Your task to perform on an android device: Go to privacy settings Image 0: 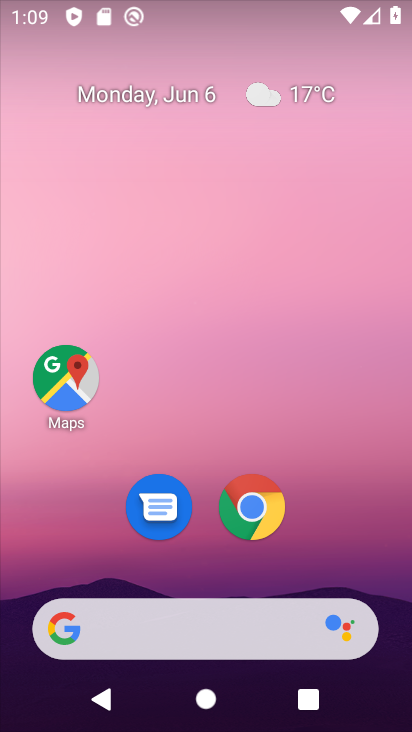
Step 0: drag from (247, 666) to (253, 178)
Your task to perform on an android device: Go to privacy settings Image 1: 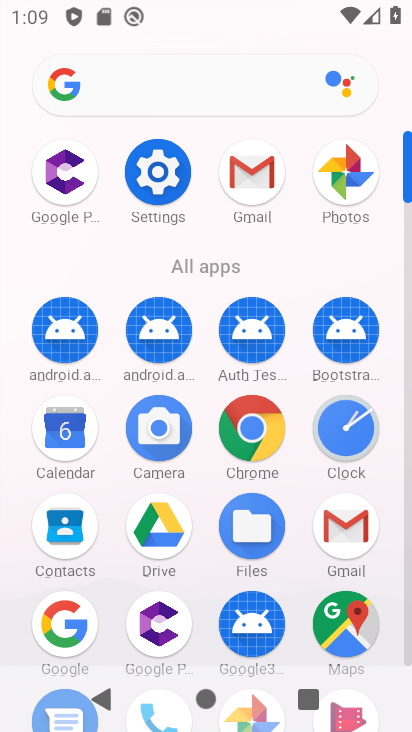
Step 1: click (140, 146)
Your task to perform on an android device: Go to privacy settings Image 2: 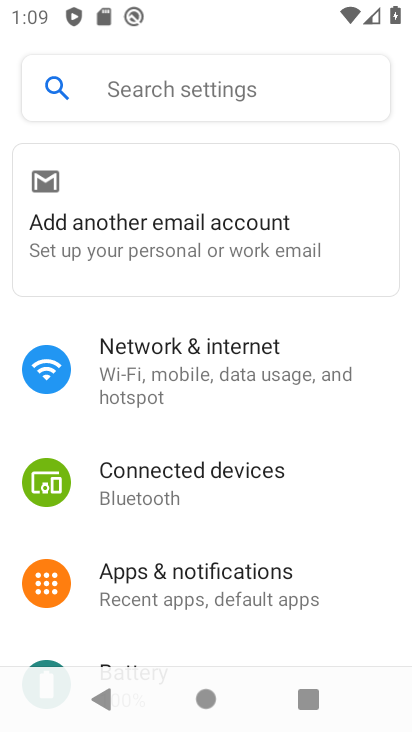
Step 2: click (177, 92)
Your task to perform on an android device: Go to privacy settings Image 3: 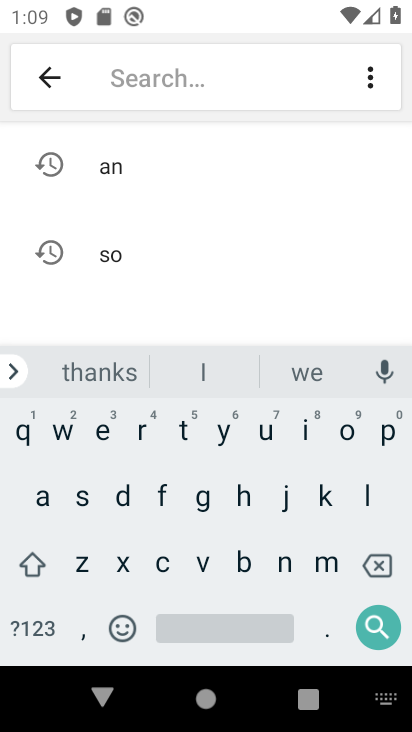
Step 3: click (371, 439)
Your task to perform on an android device: Go to privacy settings Image 4: 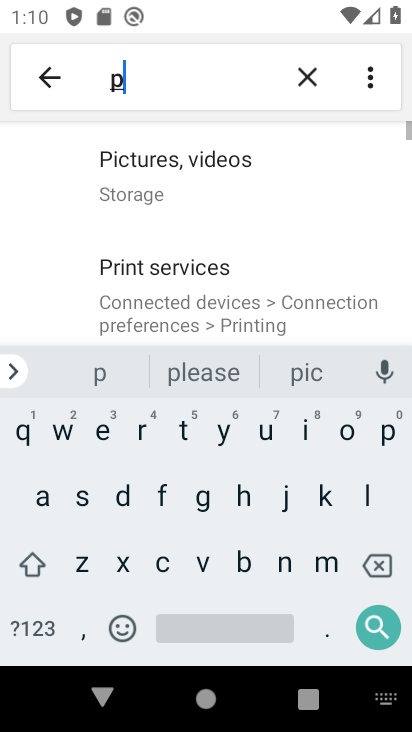
Step 4: click (136, 441)
Your task to perform on an android device: Go to privacy settings Image 5: 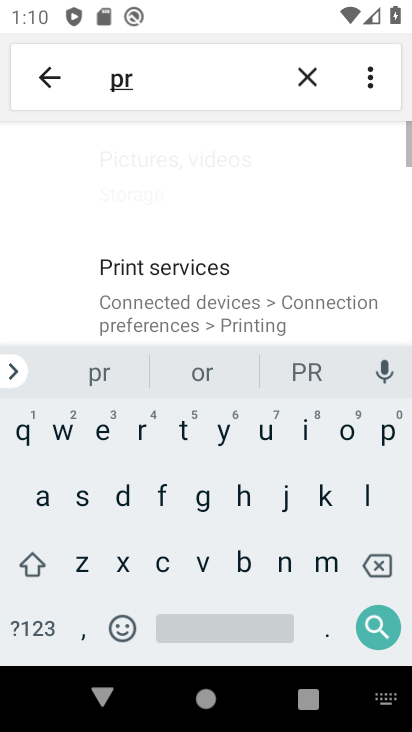
Step 5: click (307, 430)
Your task to perform on an android device: Go to privacy settings Image 6: 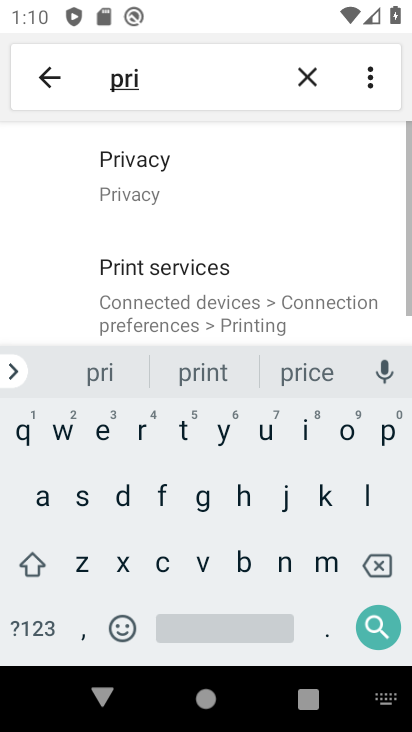
Step 6: click (172, 178)
Your task to perform on an android device: Go to privacy settings Image 7: 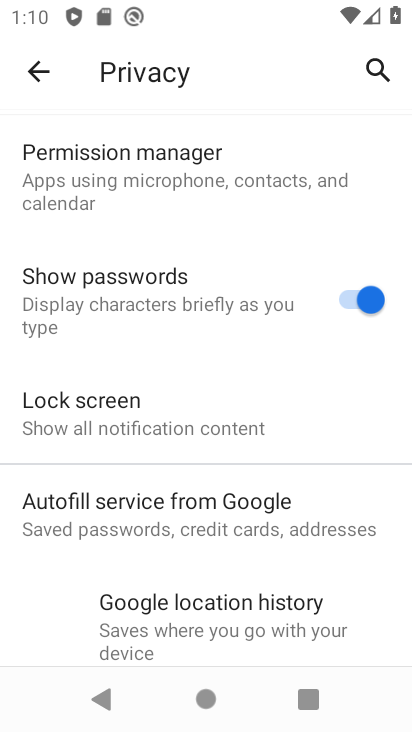
Step 7: task complete